Your task to perform on an android device: Go to Google maps Image 0: 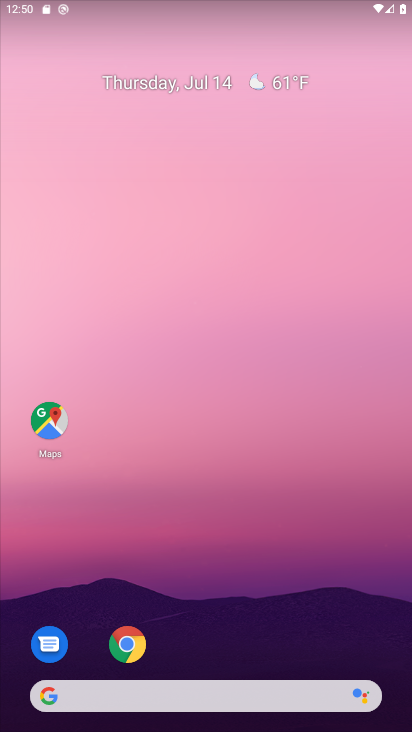
Step 0: click (57, 419)
Your task to perform on an android device: Go to Google maps Image 1: 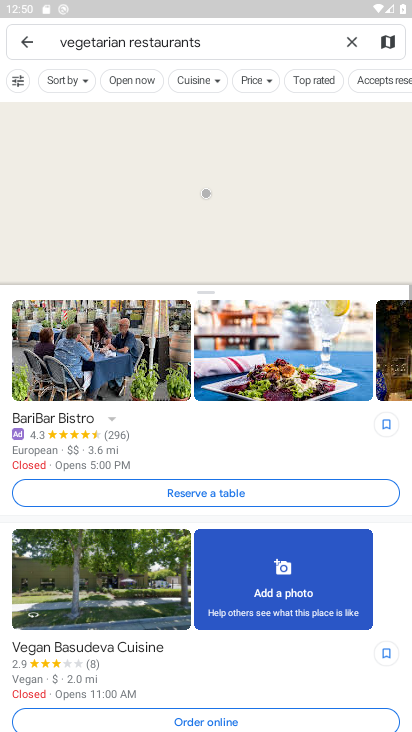
Step 1: task complete